Your task to perform on an android device: Open the stopwatch Image 0: 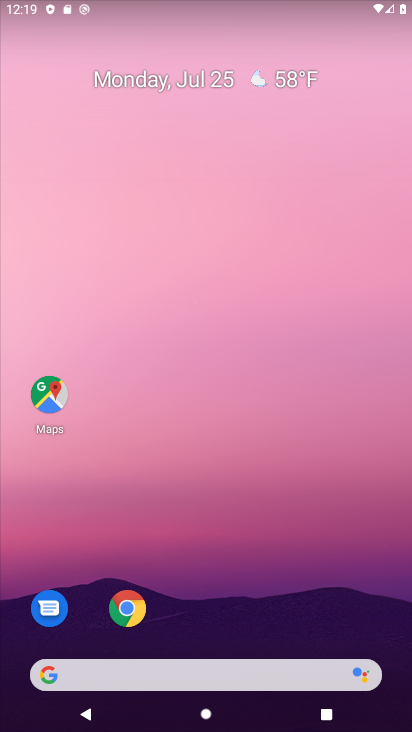
Step 0: drag from (346, 610) to (268, 130)
Your task to perform on an android device: Open the stopwatch Image 1: 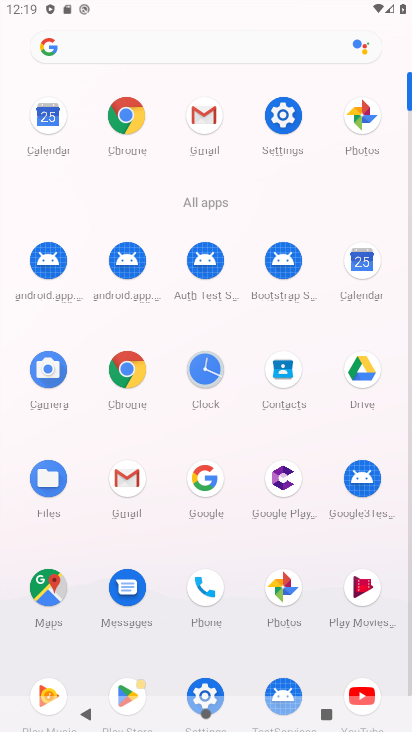
Step 1: click (212, 364)
Your task to perform on an android device: Open the stopwatch Image 2: 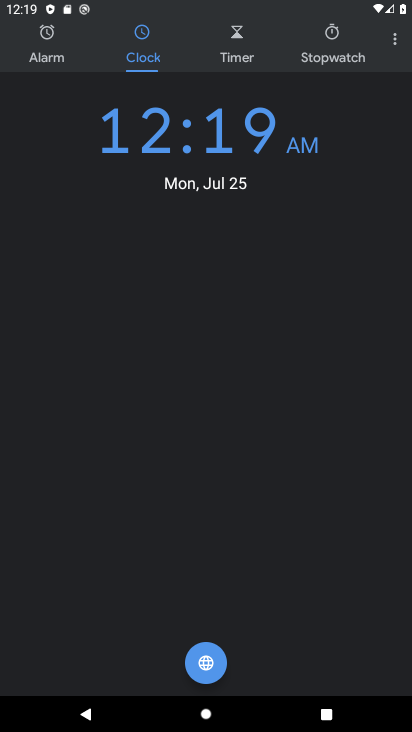
Step 2: click (327, 56)
Your task to perform on an android device: Open the stopwatch Image 3: 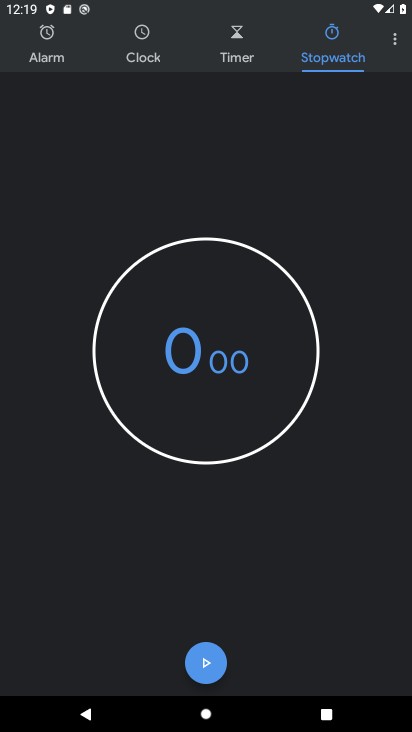
Step 3: click (218, 661)
Your task to perform on an android device: Open the stopwatch Image 4: 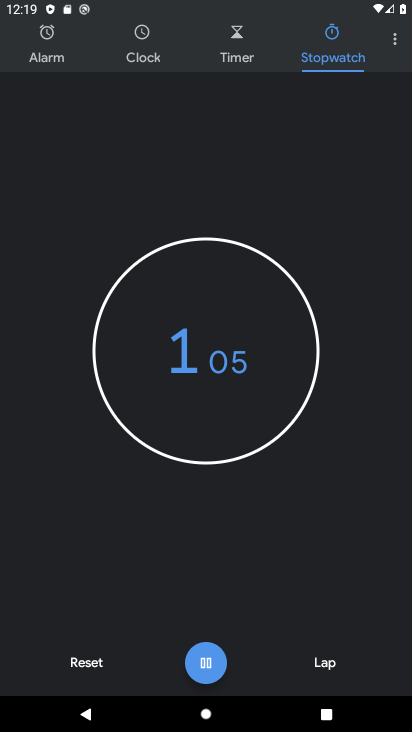
Step 4: click (218, 650)
Your task to perform on an android device: Open the stopwatch Image 5: 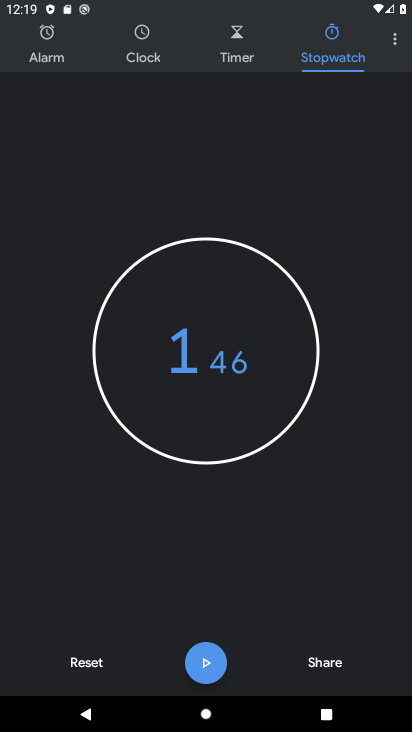
Step 5: task complete